Your task to perform on an android device: Go to Yahoo.com Image 0: 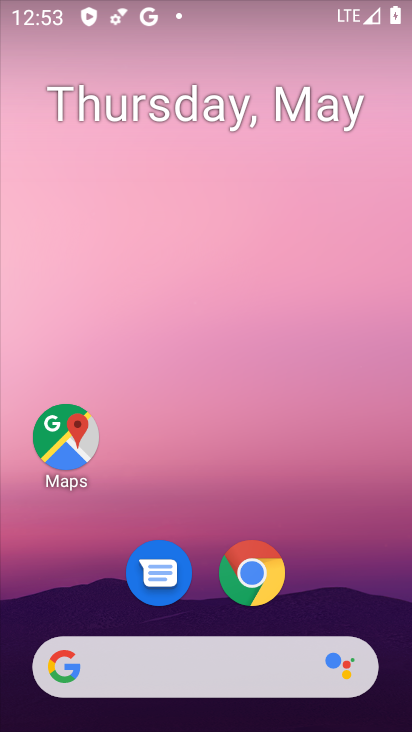
Step 0: drag from (319, 441) to (319, 116)
Your task to perform on an android device: Go to Yahoo.com Image 1: 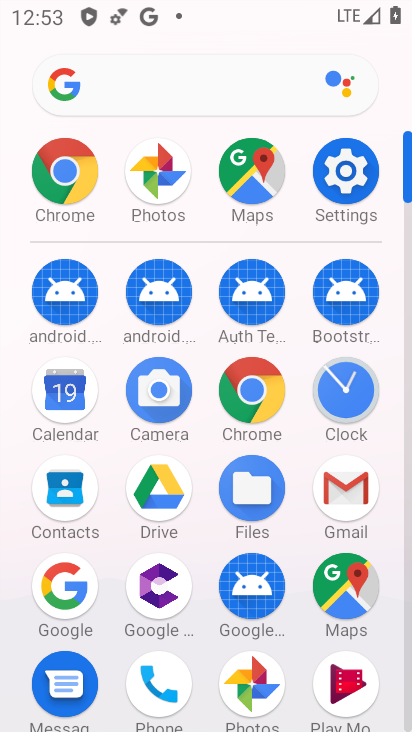
Step 1: drag from (17, 540) to (31, 251)
Your task to perform on an android device: Go to Yahoo.com Image 2: 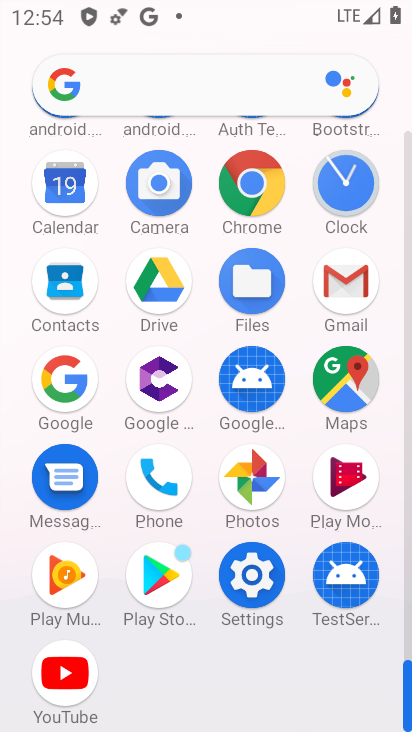
Step 2: click (252, 183)
Your task to perform on an android device: Go to Yahoo.com Image 3: 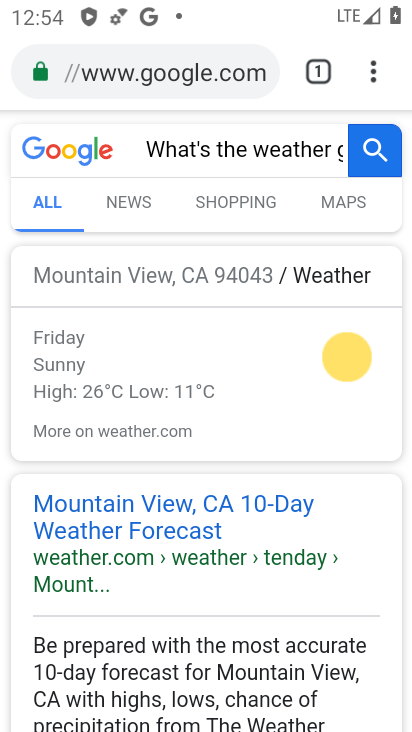
Step 3: click (201, 74)
Your task to perform on an android device: Go to Yahoo.com Image 4: 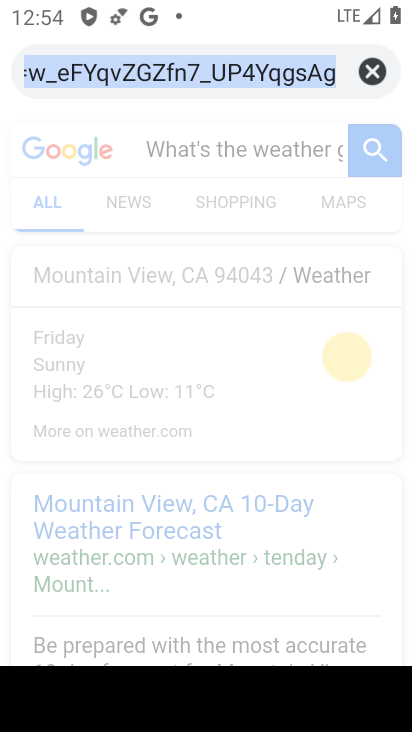
Step 4: click (370, 74)
Your task to perform on an android device: Go to Yahoo.com Image 5: 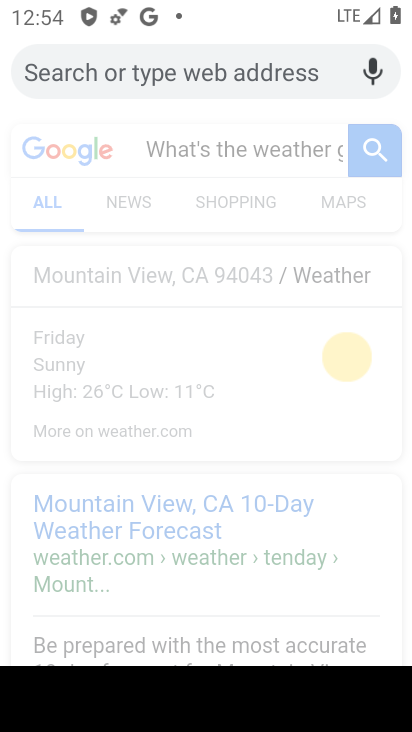
Step 5: type " Yahoo.com"
Your task to perform on an android device: Go to Yahoo.com Image 6: 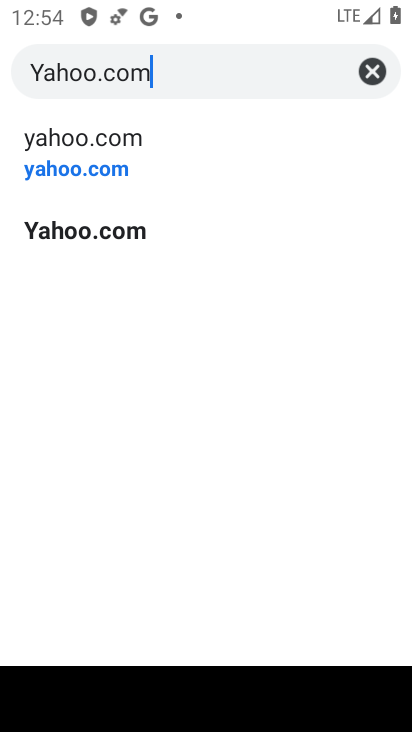
Step 6: type ""
Your task to perform on an android device: Go to Yahoo.com Image 7: 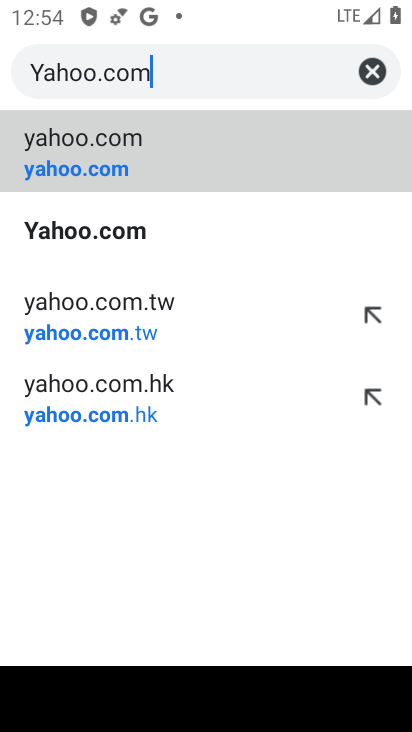
Step 7: click (138, 172)
Your task to perform on an android device: Go to Yahoo.com Image 8: 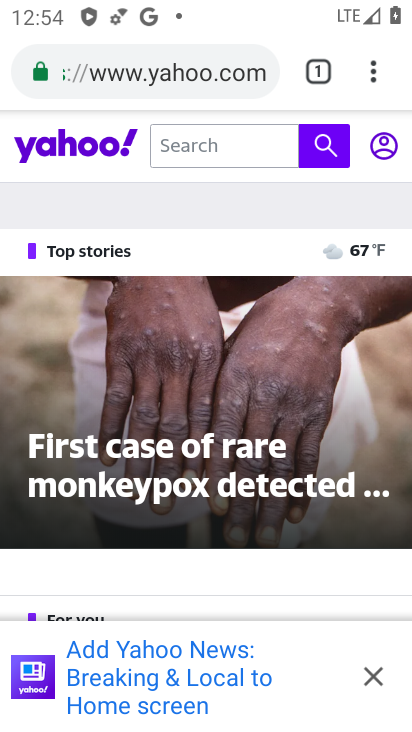
Step 8: task complete